Your task to perform on an android device: change notification settings in the gmail app Image 0: 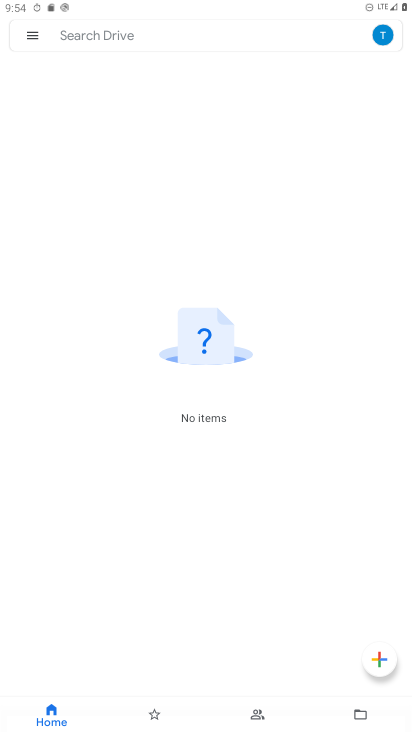
Step 0: press home button
Your task to perform on an android device: change notification settings in the gmail app Image 1: 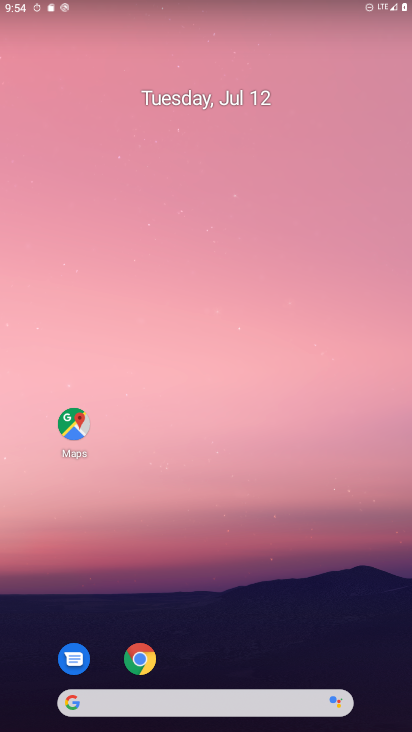
Step 1: drag from (389, 716) to (273, 55)
Your task to perform on an android device: change notification settings in the gmail app Image 2: 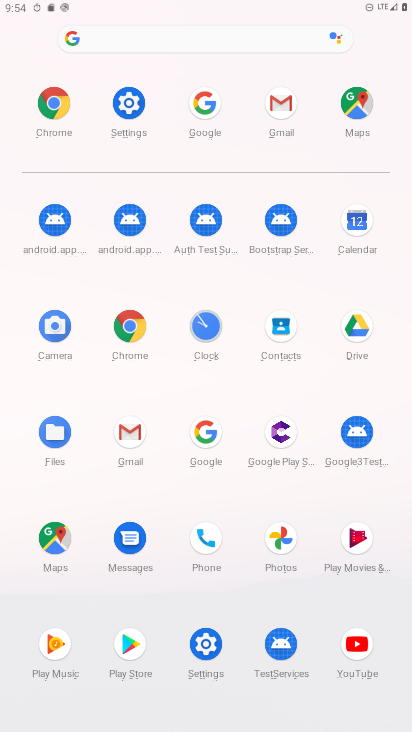
Step 2: click (125, 434)
Your task to perform on an android device: change notification settings in the gmail app Image 3: 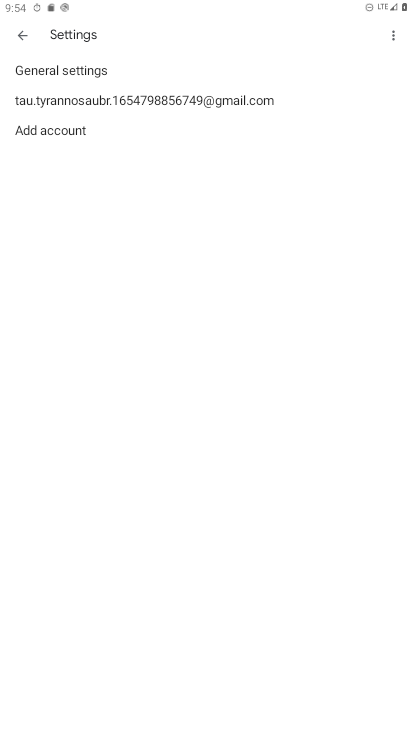
Step 3: click (145, 101)
Your task to perform on an android device: change notification settings in the gmail app Image 4: 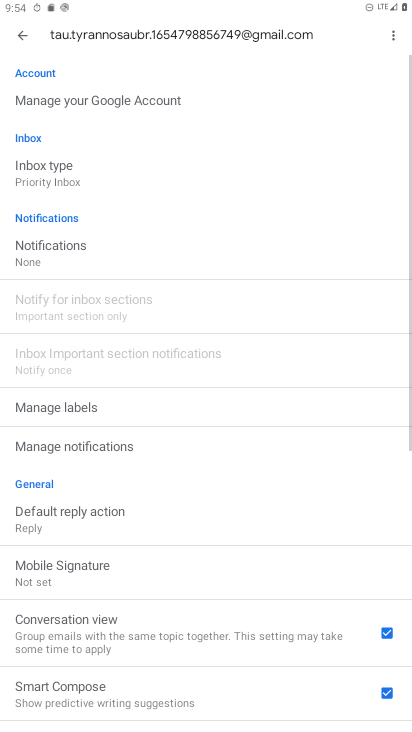
Step 4: click (65, 243)
Your task to perform on an android device: change notification settings in the gmail app Image 5: 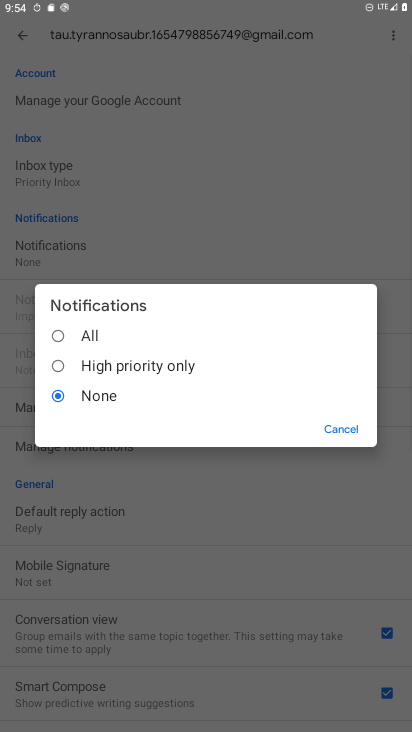
Step 5: click (76, 337)
Your task to perform on an android device: change notification settings in the gmail app Image 6: 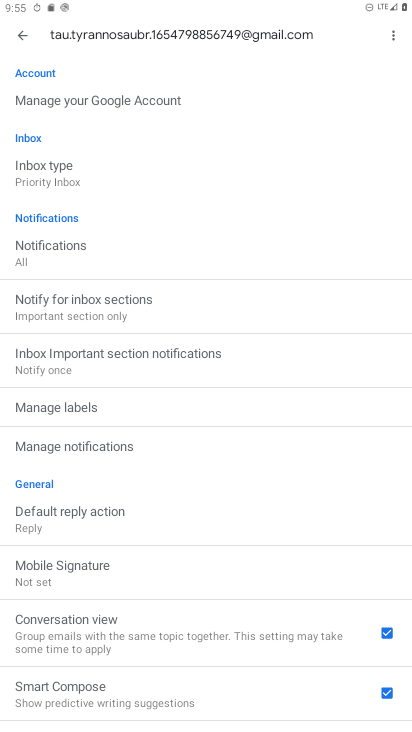
Step 6: task complete